Your task to perform on an android device: Open location settings Image 0: 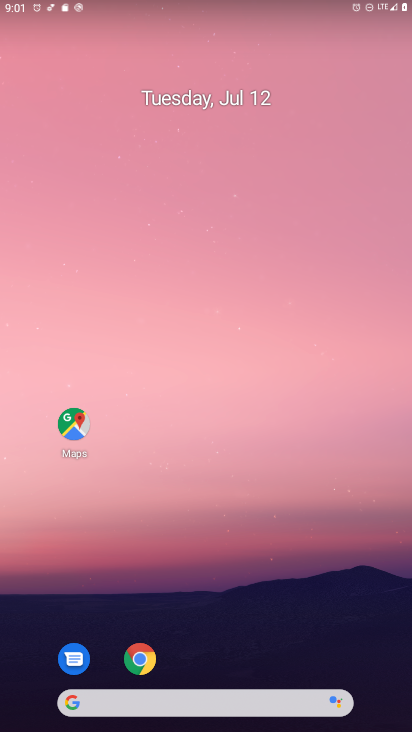
Step 0: drag from (169, 702) to (249, 218)
Your task to perform on an android device: Open location settings Image 1: 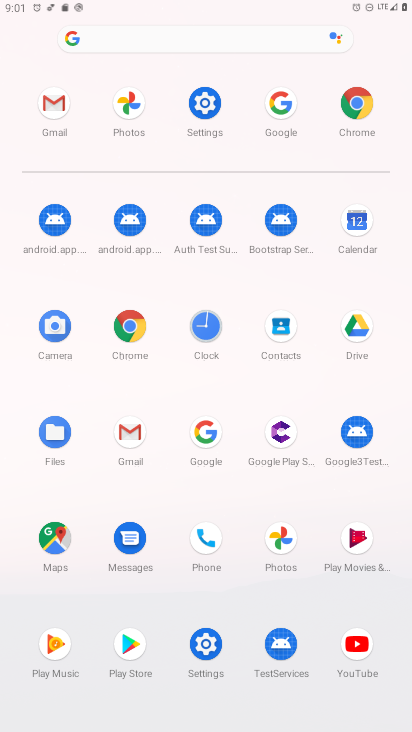
Step 1: click (205, 102)
Your task to perform on an android device: Open location settings Image 2: 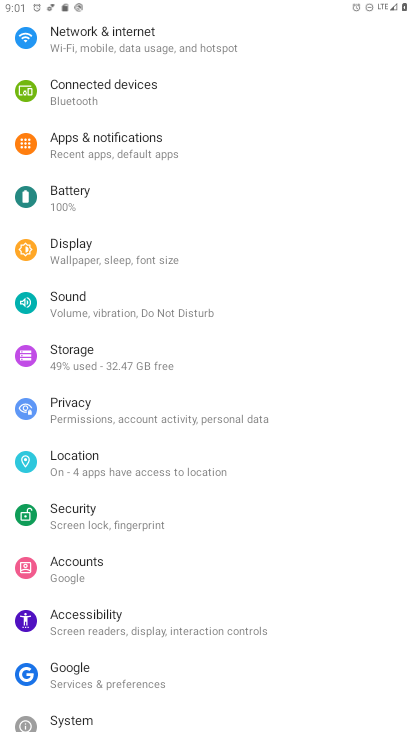
Step 2: click (87, 458)
Your task to perform on an android device: Open location settings Image 3: 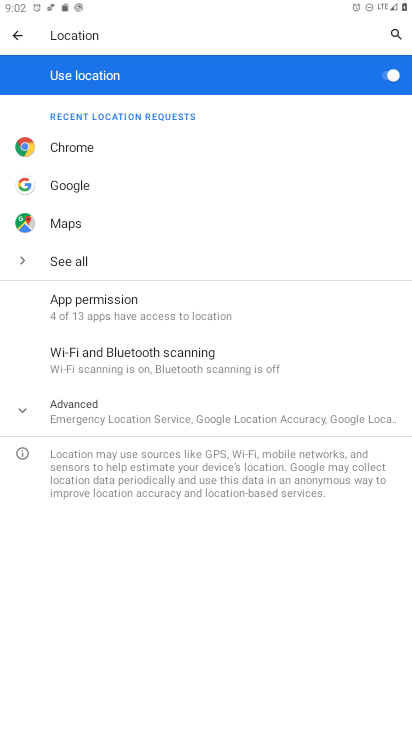
Step 3: task complete